Your task to perform on an android device: remove spam from my inbox in the gmail app Image 0: 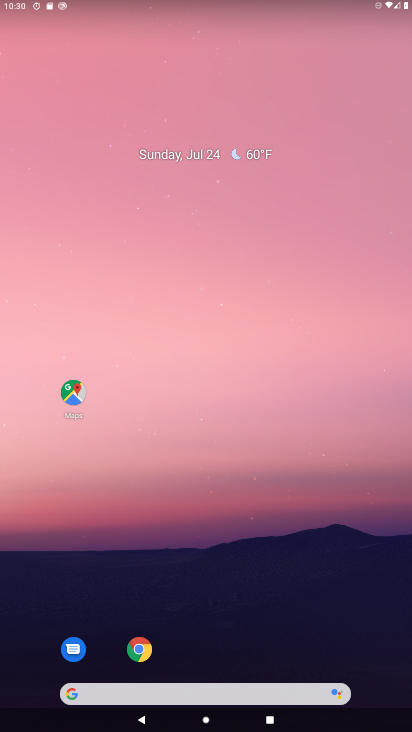
Step 0: drag from (337, 572) to (128, 1)
Your task to perform on an android device: remove spam from my inbox in the gmail app Image 1: 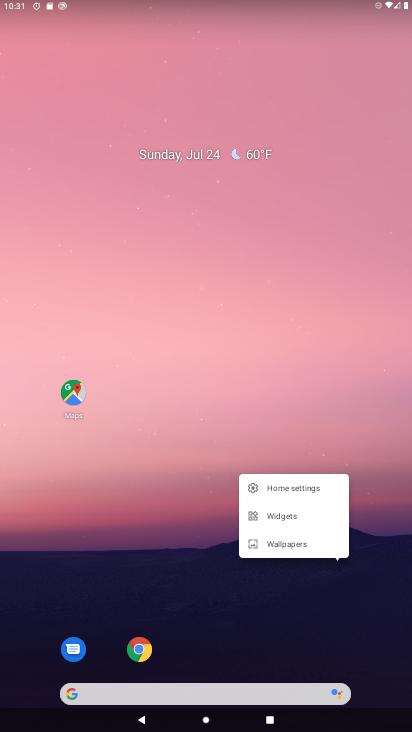
Step 1: click (182, 399)
Your task to perform on an android device: remove spam from my inbox in the gmail app Image 2: 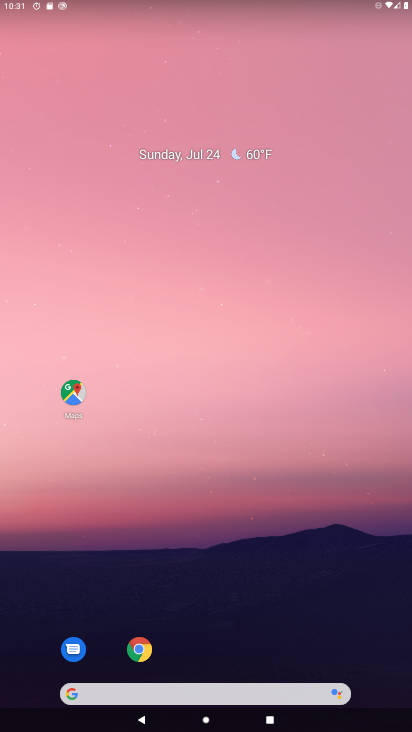
Step 2: drag from (267, 631) to (256, 54)
Your task to perform on an android device: remove spam from my inbox in the gmail app Image 3: 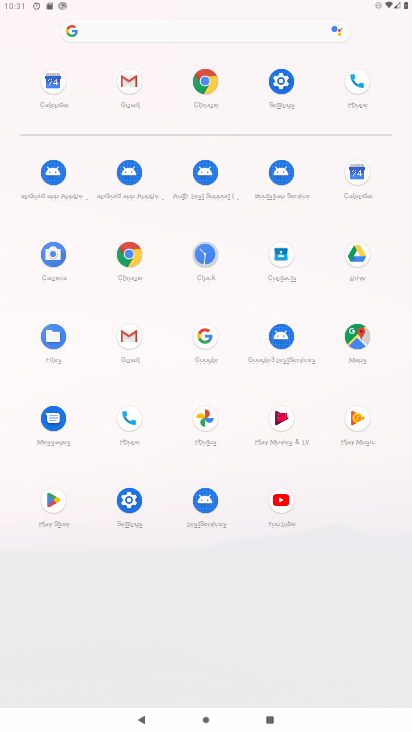
Step 3: click (133, 341)
Your task to perform on an android device: remove spam from my inbox in the gmail app Image 4: 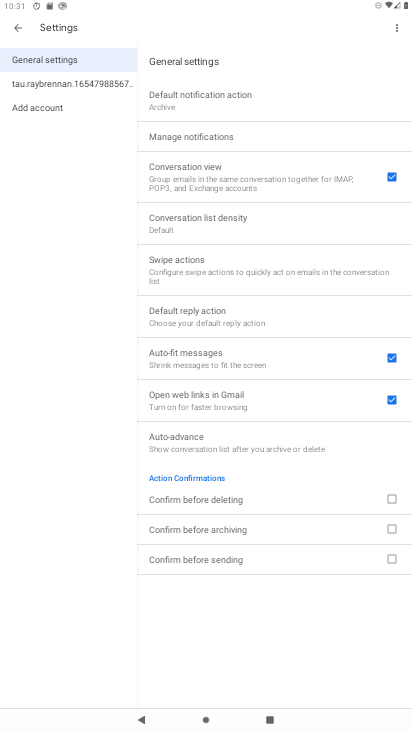
Step 4: click (10, 26)
Your task to perform on an android device: remove spam from my inbox in the gmail app Image 5: 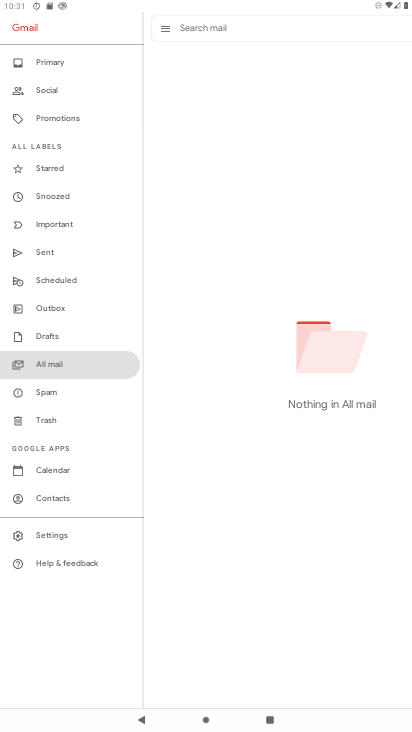
Step 5: click (54, 62)
Your task to perform on an android device: remove spam from my inbox in the gmail app Image 6: 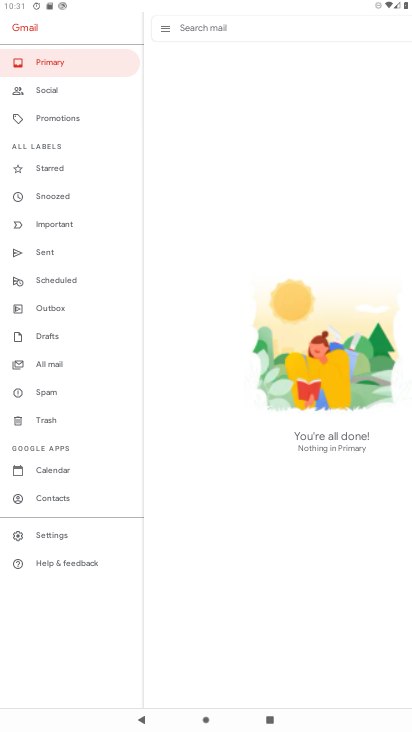
Step 6: task complete